Your task to perform on an android device: Turn off the flashlight Image 0: 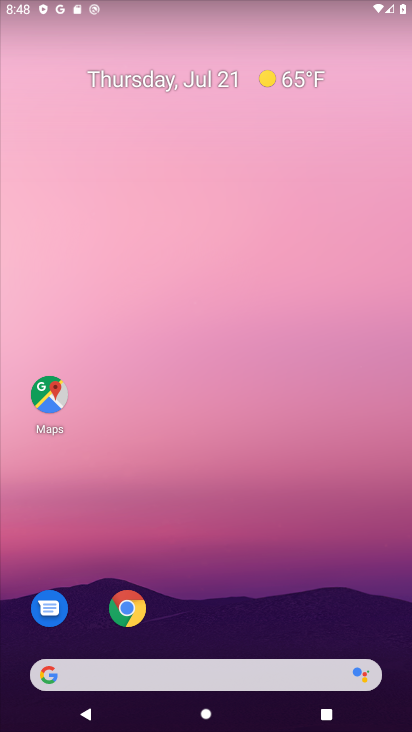
Step 0: drag from (252, 577) to (244, 194)
Your task to perform on an android device: Turn off the flashlight Image 1: 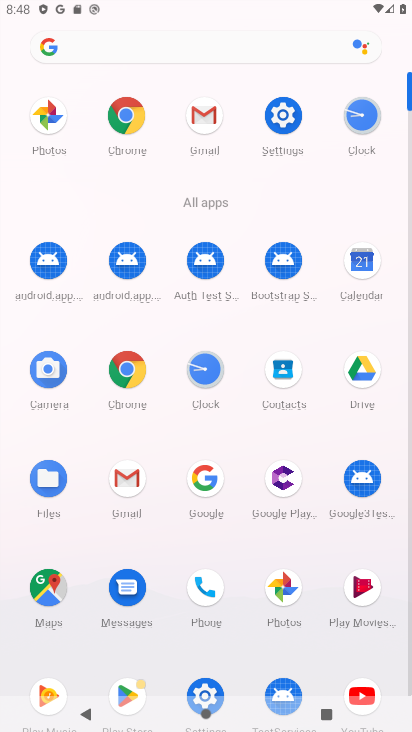
Step 1: click (286, 117)
Your task to perform on an android device: Turn off the flashlight Image 2: 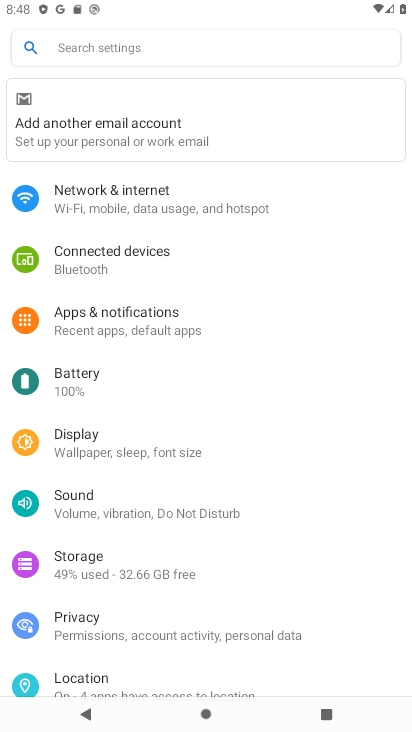
Step 2: task complete